Your task to perform on an android device: visit the assistant section in the google photos Image 0: 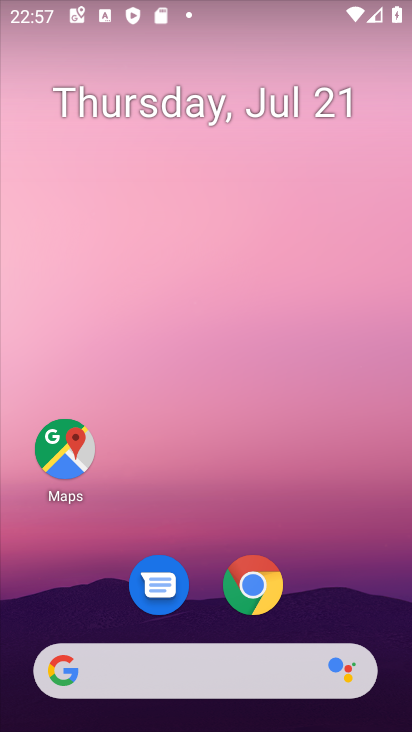
Step 0: drag from (337, 597) to (369, 71)
Your task to perform on an android device: visit the assistant section in the google photos Image 1: 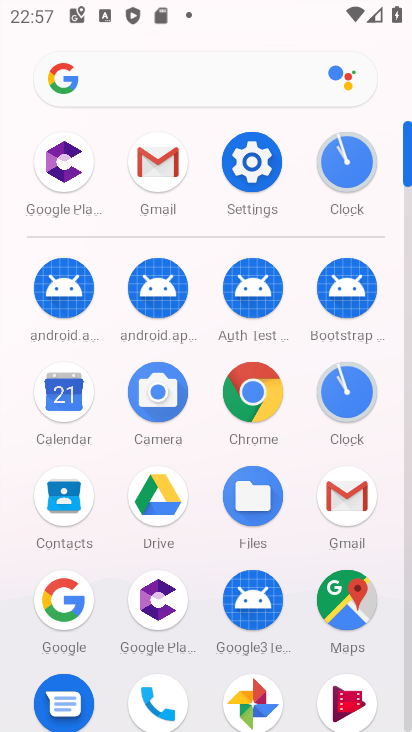
Step 1: click (252, 708)
Your task to perform on an android device: visit the assistant section in the google photos Image 2: 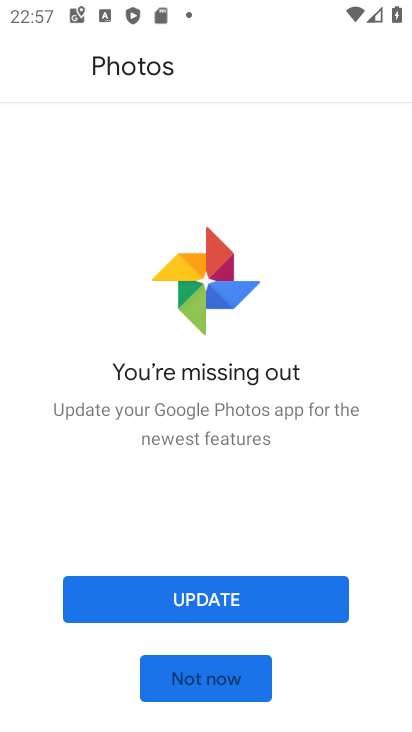
Step 2: click (244, 686)
Your task to perform on an android device: visit the assistant section in the google photos Image 3: 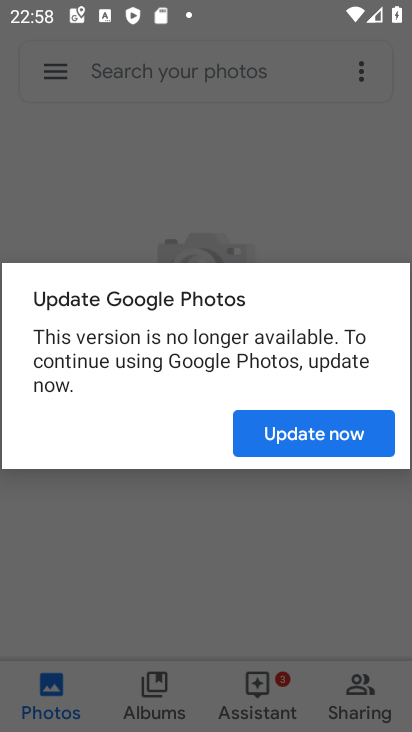
Step 3: click (358, 437)
Your task to perform on an android device: visit the assistant section in the google photos Image 4: 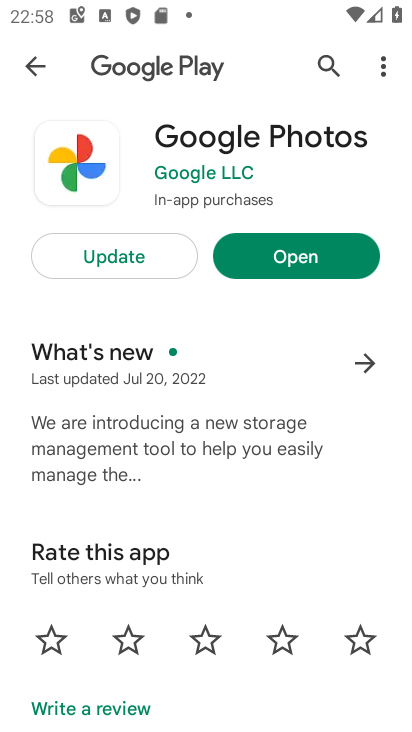
Step 4: click (302, 254)
Your task to perform on an android device: visit the assistant section in the google photos Image 5: 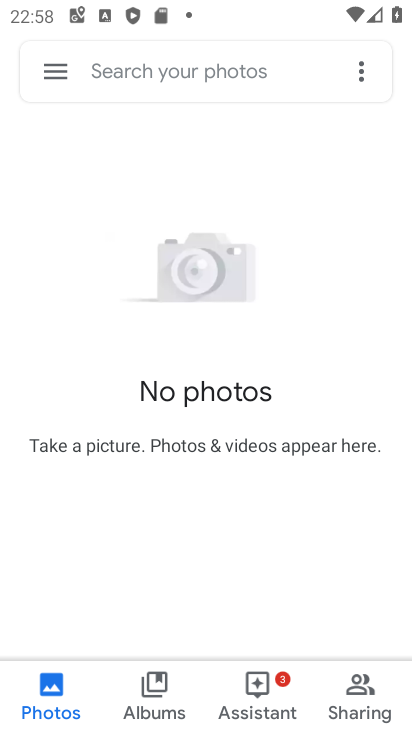
Step 5: click (255, 686)
Your task to perform on an android device: visit the assistant section in the google photos Image 6: 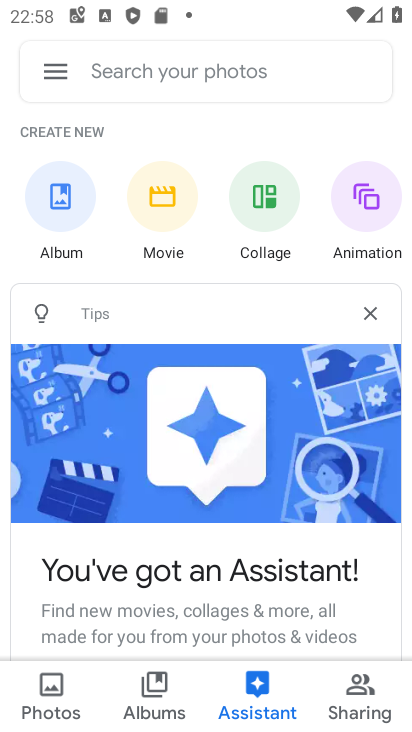
Step 6: task complete